Your task to perform on an android device: turn on javascript in the chrome app Image 0: 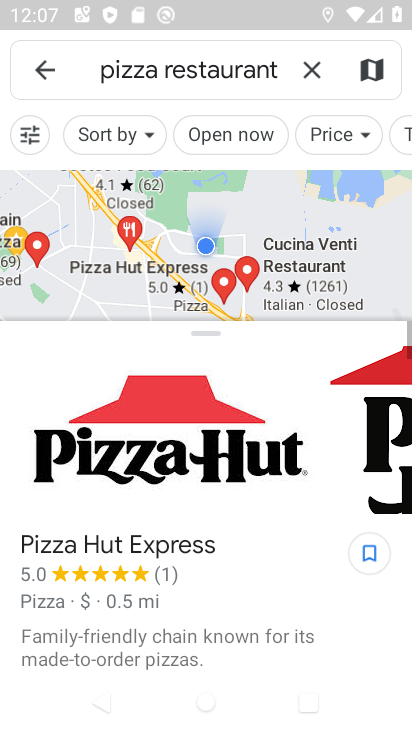
Step 0: press home button
Your task to perform on an android device: turn on javascript in the chrome app Image 1: 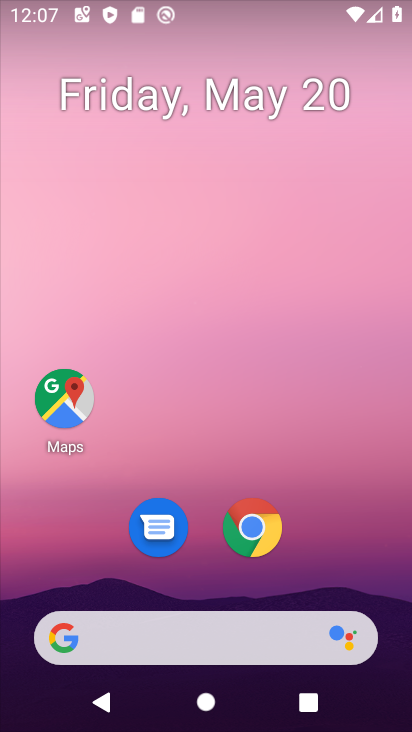
Step 1: click (235, 535)
Your task to perform on an android device: turn on javascript in the chrome app Image 2: 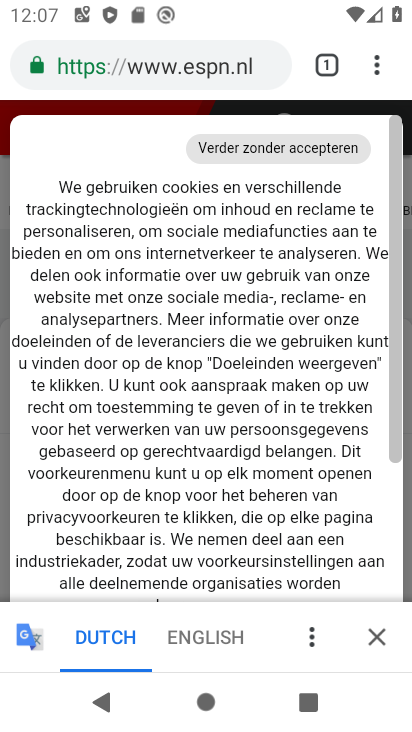
Step 2: drag from (377, 85) to (207, 588)
Your task to perform on an android device: turn on javascript in the chrome app Image 3: 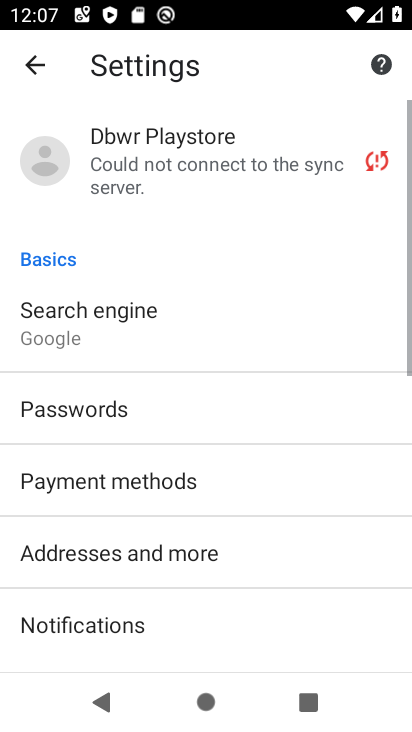
Step 3: drag from (236, 546) to (220, 129)
Your task to perform on an android device: turn on javascript in the chrome app Image 4: 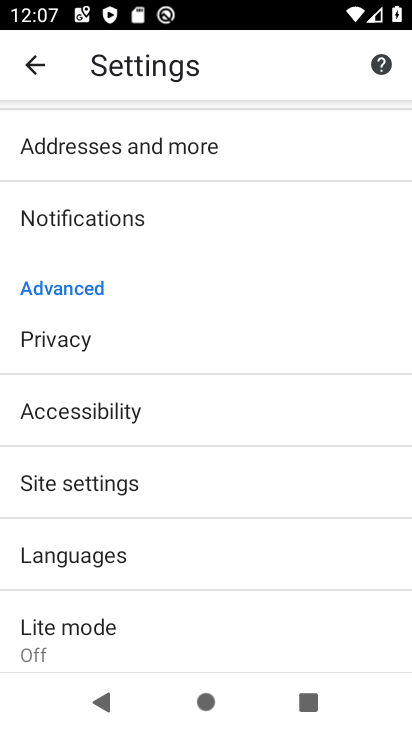
Step 4: click (166, 455)
Your task to perform on an android device: turn on javascript in the chrome app Image 5: 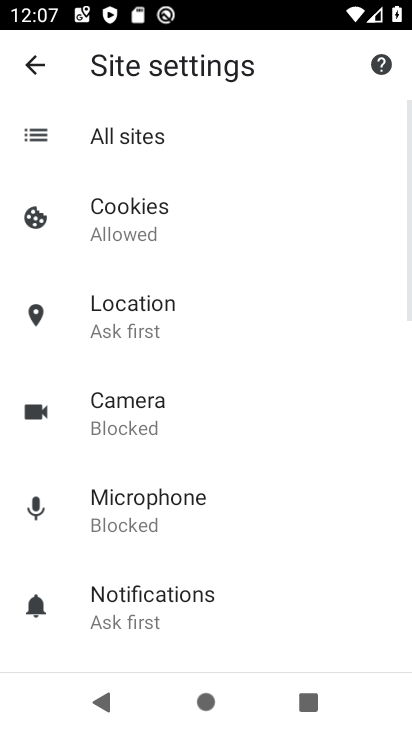
Step 5: drag from (197, 557) to (231, 265)
Your task to perform on an android device: turn on javascript in the chrome app Image 6: 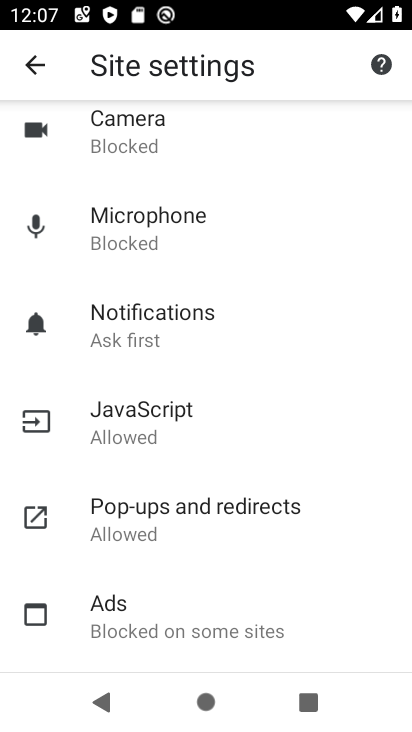
Step 6: click (202, 432)
Your task to perform on an android device: turn on javascript in the chrome app Image 7: 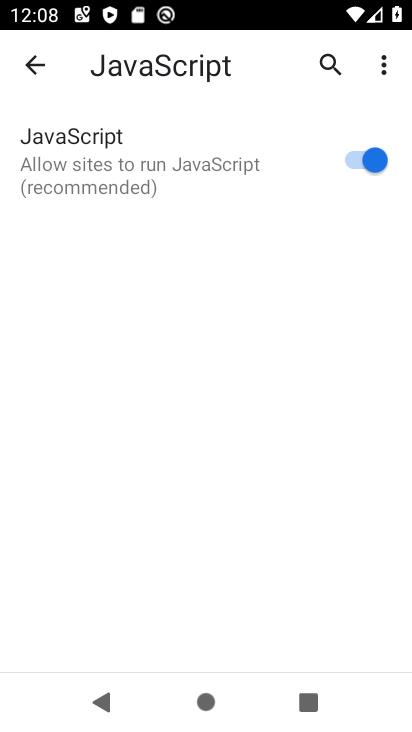
Step 7: task complete